Your task to perform on an android device: create a new album in the google photos Image 0: 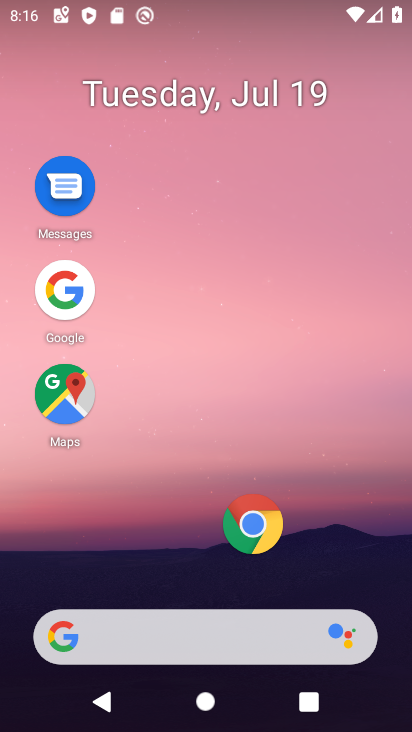
Step 0: drag from (201, 586) to (155, 108)
Your task to perform on an android device: create a new album in the google photos Image 1: 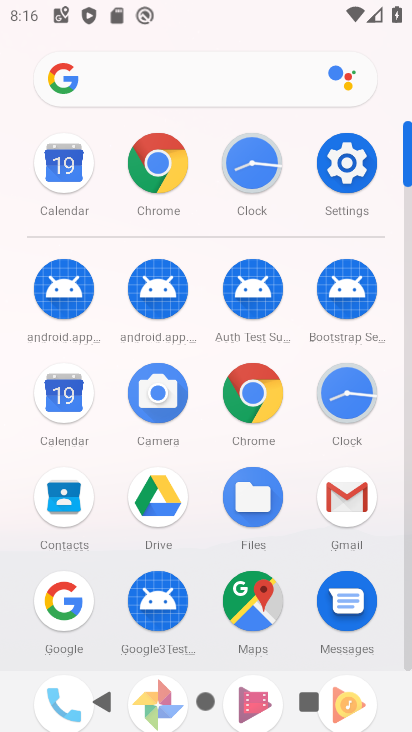
Step 1: drag from (206, 559) to (139, 79)
Your task to perform on an android device: create a new album in the google photos Image 2: 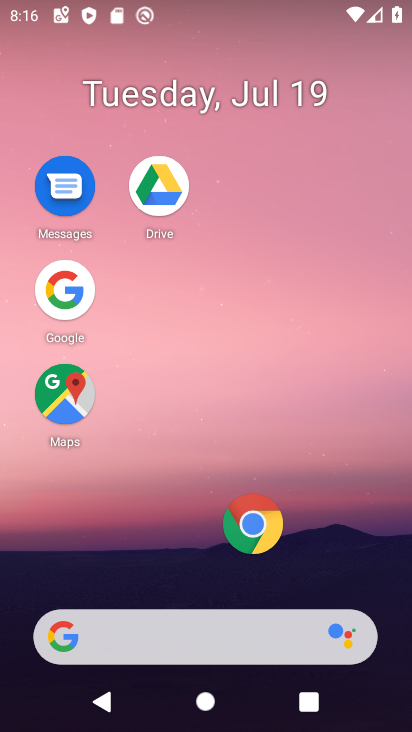
Step 2: drag from (209, 563) to (159, 10)
Your task to perform on an android device: create a new album in the google photos Image 3: 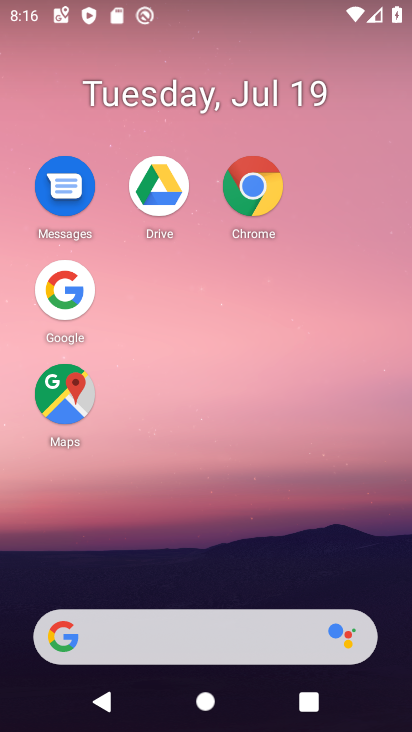
Step 3: click (188, 511)
Your task to perform on an android device: create a new album in the google photos Image 4: 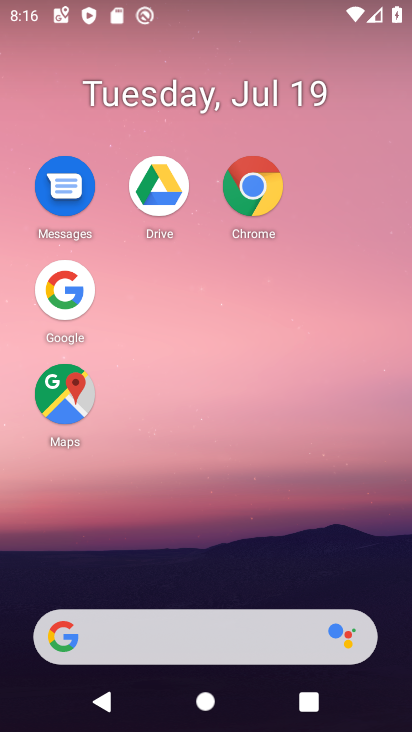
Step 4: drag from (188, 511) to (166, 340)
Your task to perform on an android device: create a new album in the google photos Image 5: 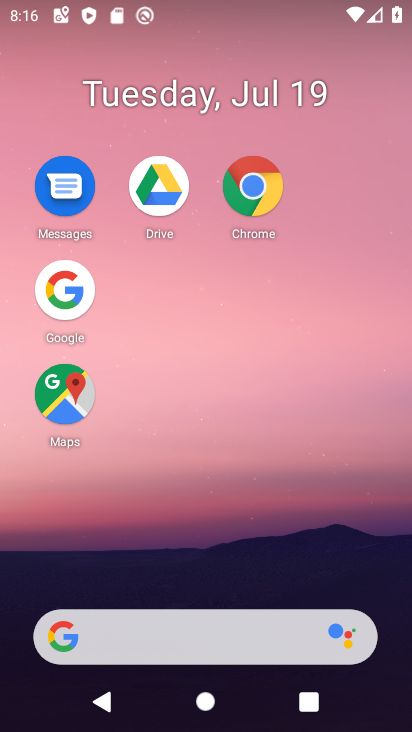
Step 5: drag from (193, 580) to (203, 37)
Your task to perform on an android device: create a new album in the google photos Image 6: 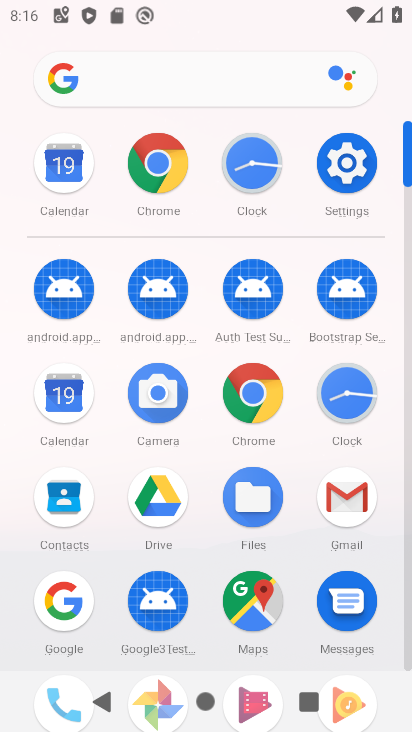
Step 6: drag from (210, 578) to (185, 25)
Your task to perform on an android device: create a new album in the google photos Image 7: 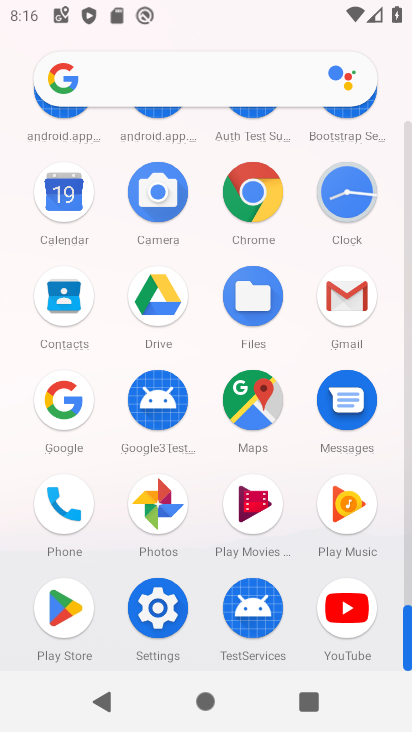
Step 7: click (146, 499)
Your task to perform on an android device: create a new album in the google photos Image 8: 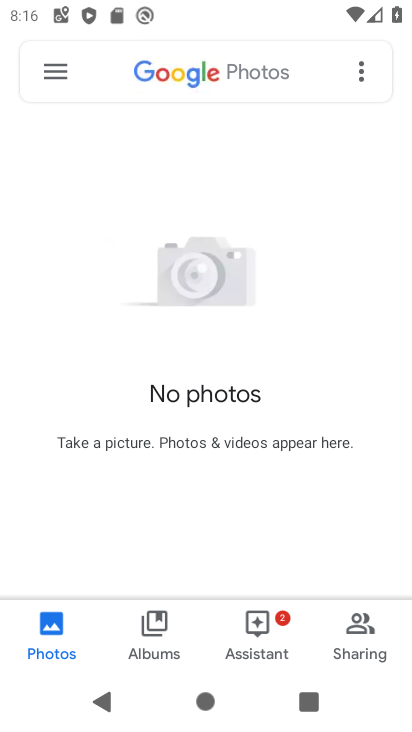
Step 8: click (148, 618)
Your task to perform on an android device: create a new album in the google photos Image 9: 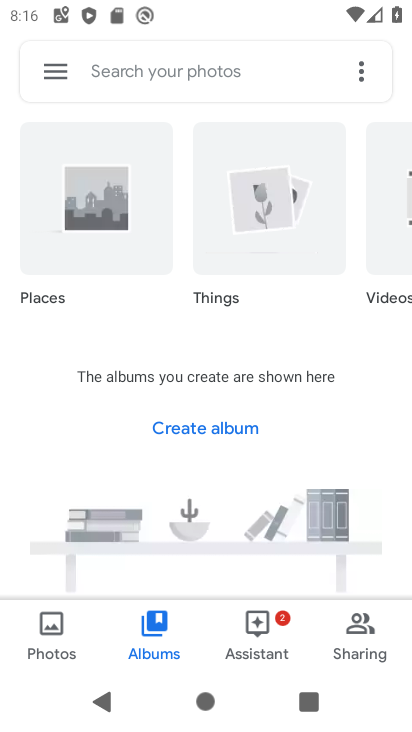
Step 9: click (200, 420)
Your task to perform on an android device: create a new album in the google photos Image 10: 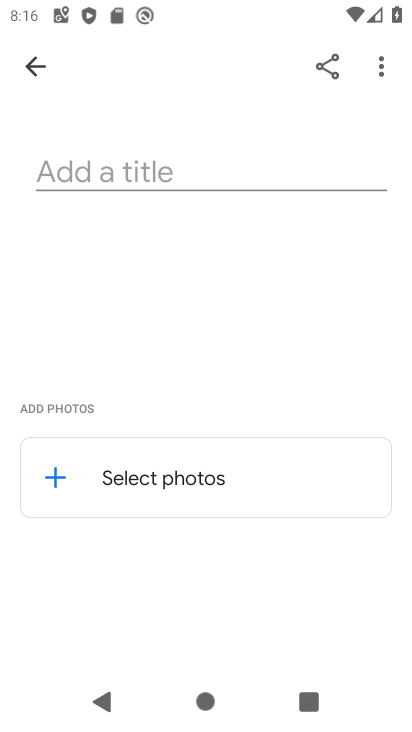
Step 10: click (177, 174)
Your task to perform on an android device: create a new album in the google photos Image 11: 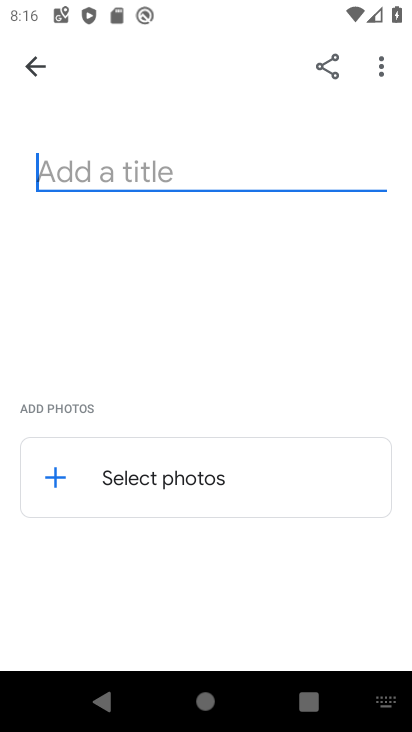
Step 11: type "fff"
Your task to perform on an android device: create a new album in the google photos Image 12: 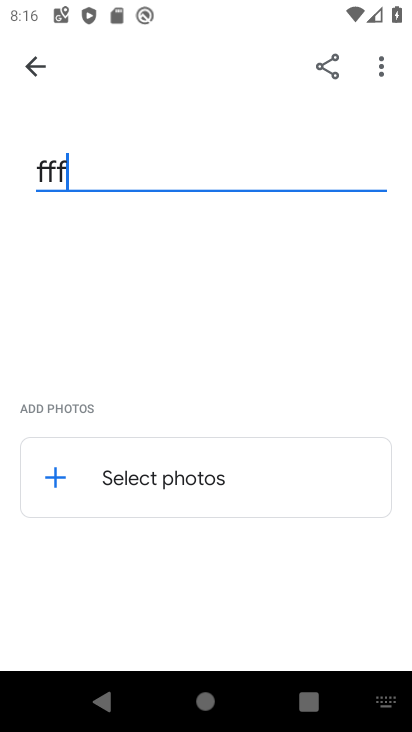
Step 12: click (246, 455)
Your task to perform on an android device: create a new album in the google photos Image 13: 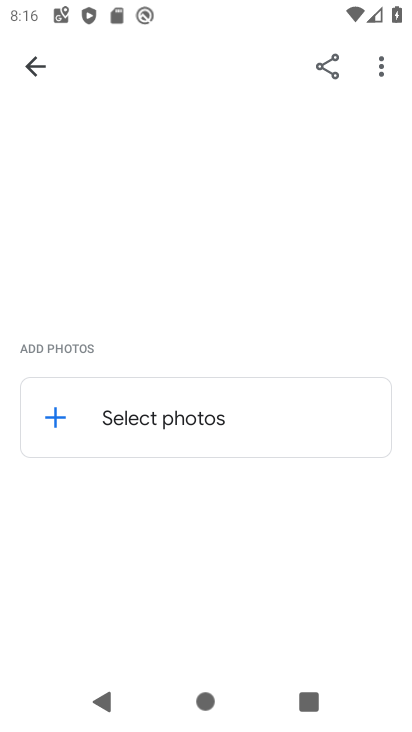
Step 13: task complete